Your task to perform on an android device: change the clock display to digital Image 0: 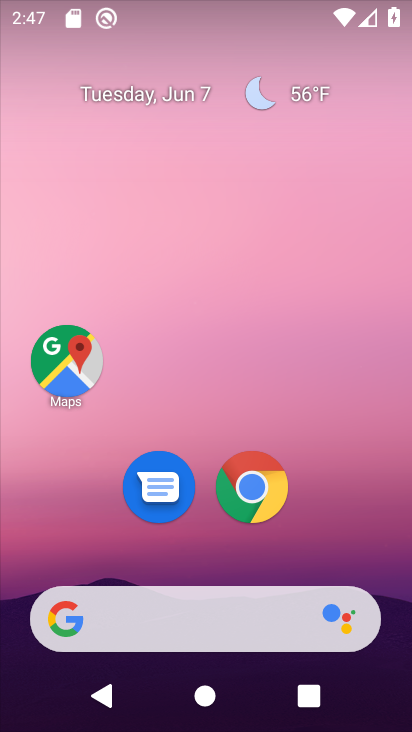
Step 0: drag from (384, 570) to (336, 274)
Your task to perform on an android device: change the clock display to digital Image 1: 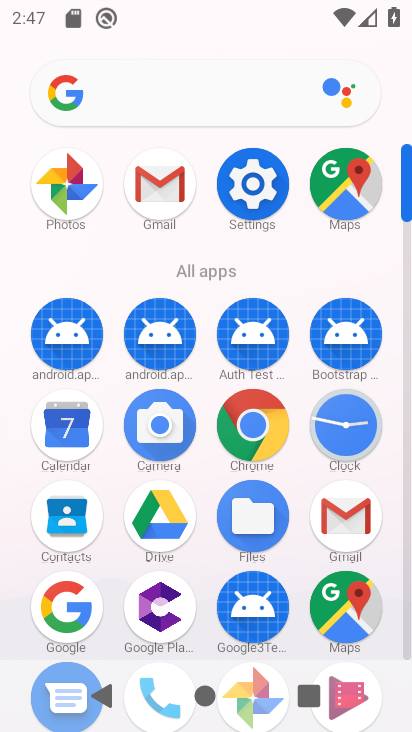
Step 1: click (339, 423)
Your task to perform on an android device: change the clock display to digital Image 2: 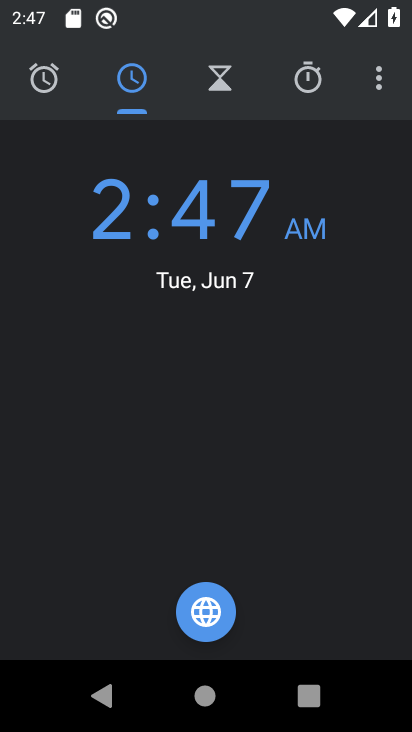
Step 2: click (374, 92)
Your task to perform on an android device: change the clock display to digital Image 3: 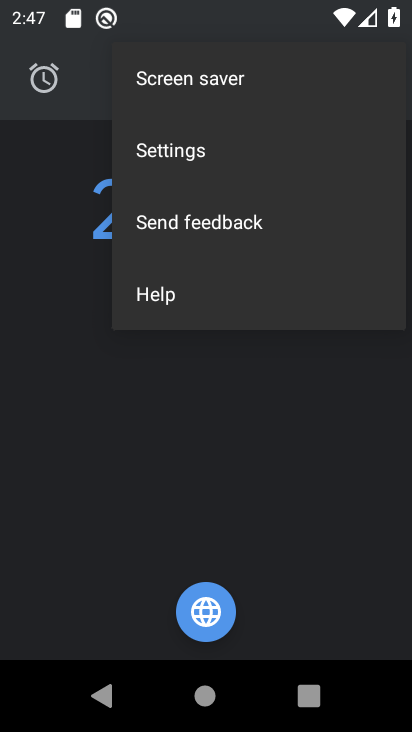
Step 3: click (218, 156)
Your task to perform on an android device: change the clock display to digital Image 4: 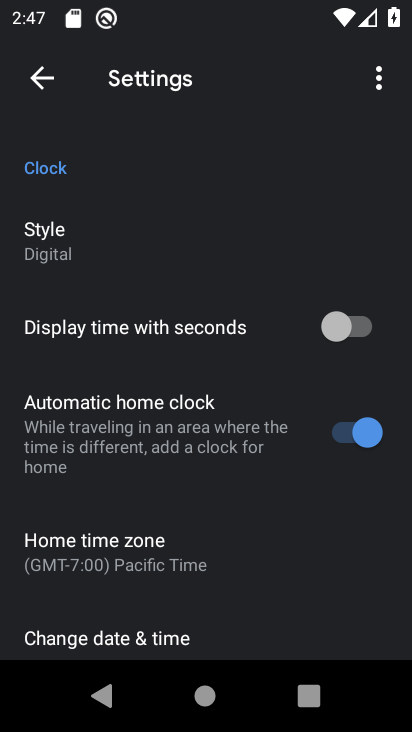
Step 4: click (203, 249)
Your task to perform on an android device: change the clock display to digital Image 5: 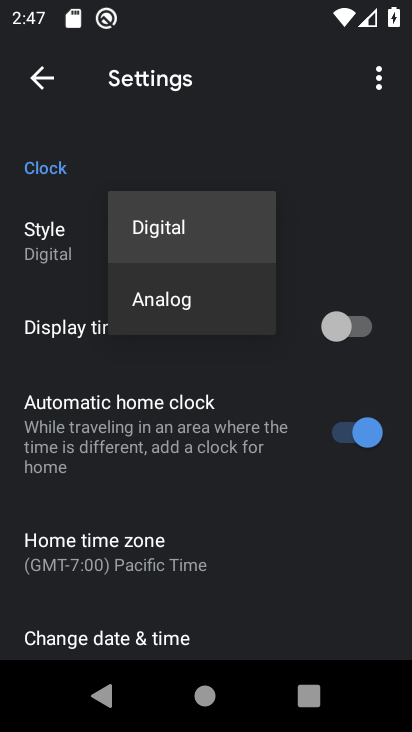
Step 5: click (203, 249)
Your task to perform on an android device: change the clock display to digital Image 6: 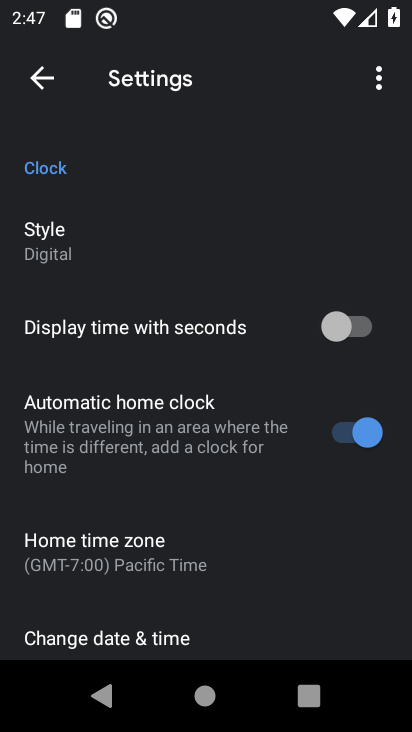
Step 6: task complete